Your task to perform on an android device: Check the news Image 0: 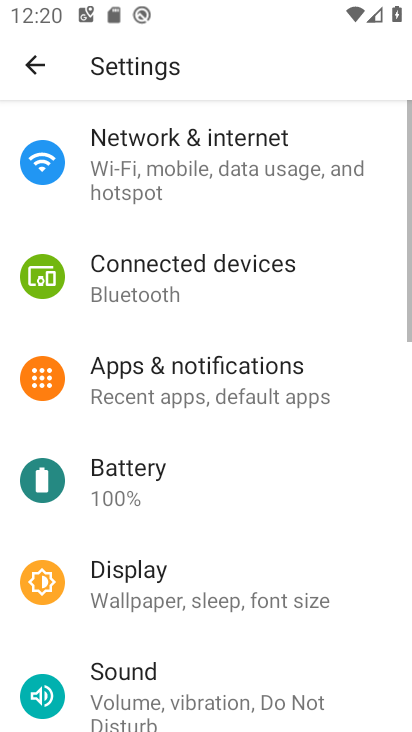
Step 0: press home button
Your task to perform on an android device: Check the news Image 1: 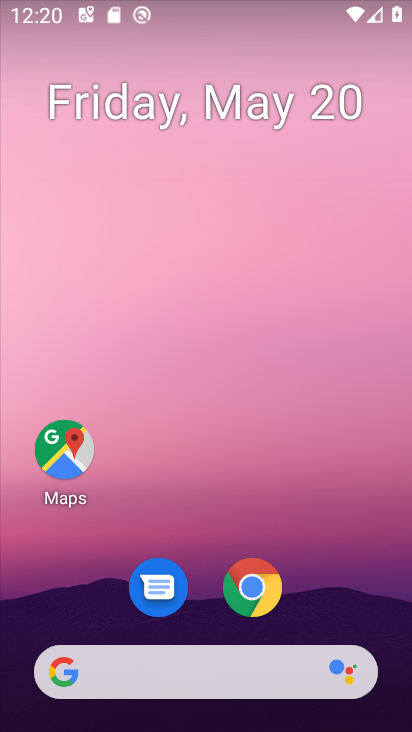
Step 1: task complete